Your task to perform on an android device: open sync settings in chrome Image 0: 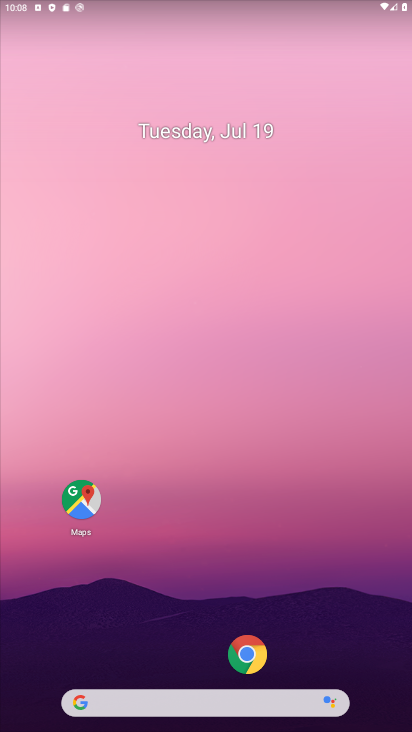
Step 0: drag from (181, 635) to (190, 285)
Your task to perform on an android device: open sync settings in chrome Image 1: 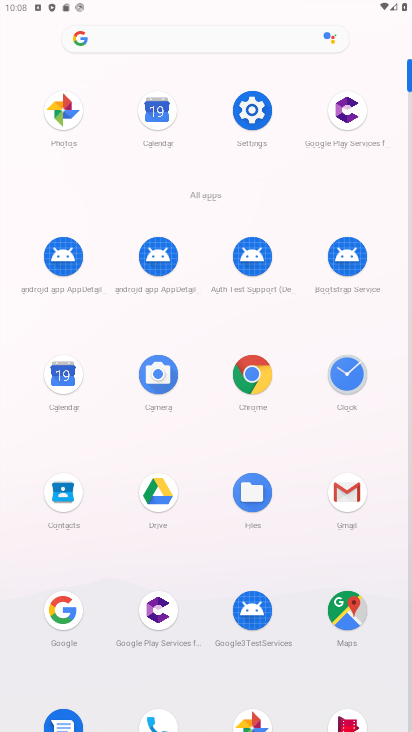
Step 1: click (242, 358)
Your task to perform on an android device: open sync settings in chrome Image 2: 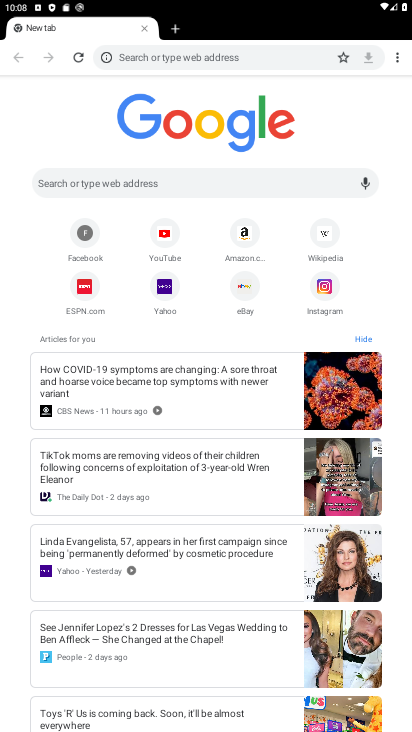
Step 2: click (403, 51)
Your task to perform on an android device: open sync settings in chrome Image 3: 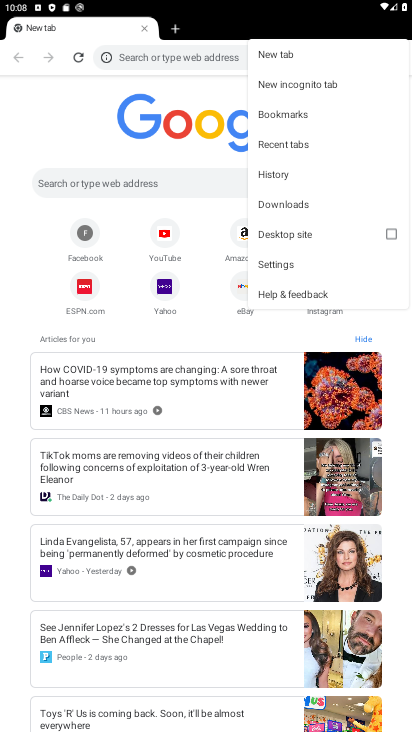
Step 3: click (279, 273)
Your task to perform on an android device: open sync settings in chrome Image 4: 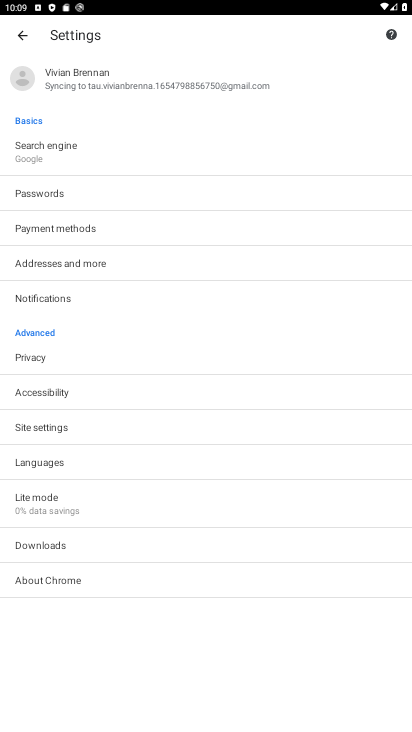
Step 4: click (128, 103)
Your task to perform on an android device: open sync settings in chrome Image 5: 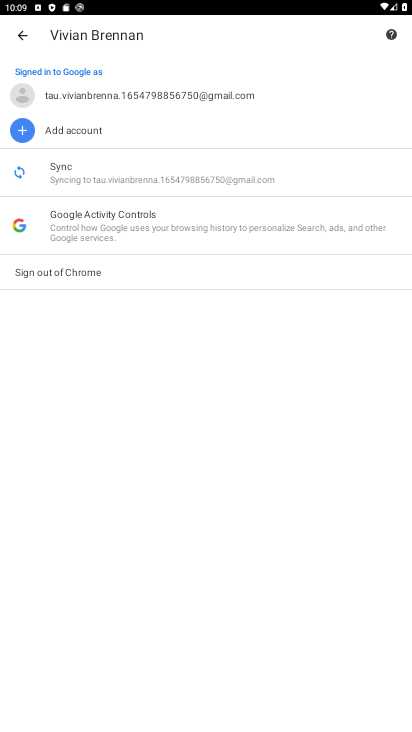
Step 5: click (135, 172)
Your task to perform on an android device: open sync settings in chrome Image 6: 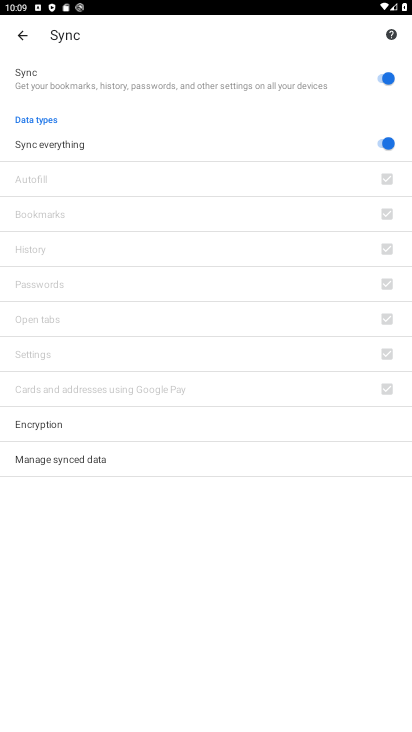
Step 6: task complete